Your task to perform on an android device: toggle javascript in the chrome app Image 0: 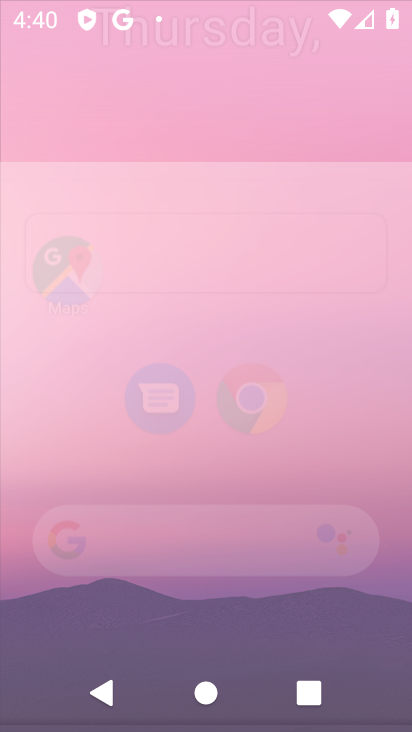
Step 0: drag from (335, 526) to (289, 92)
Your task to perform on an android device: toggle javascript in the chrome app Image 1: 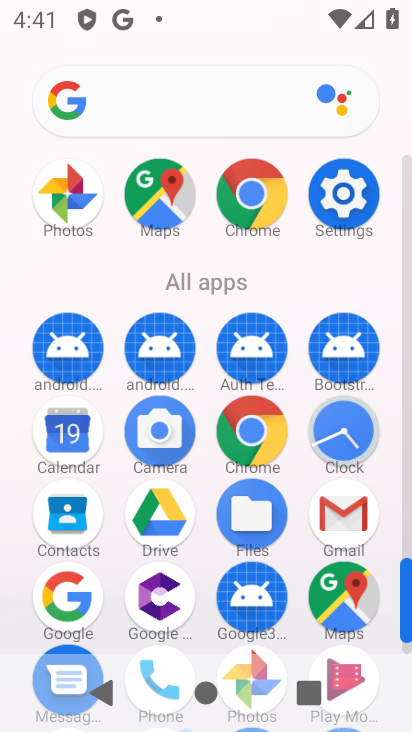
Step 1: click (264, 210)
Your task to perform on an android device: toggle javascript in the chrome app Image 2: 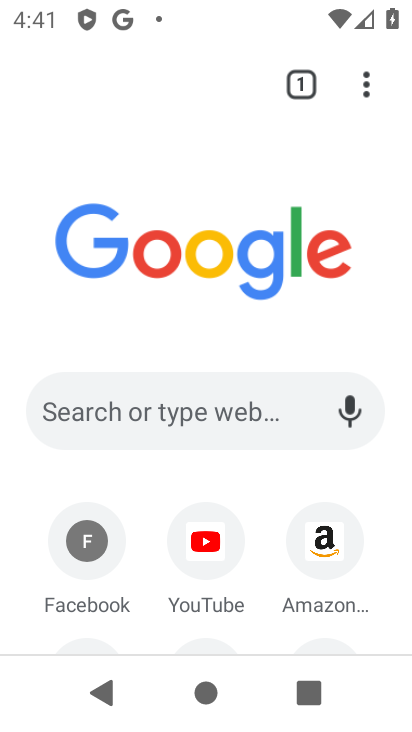
Step 2: drag from (373, 84) to (169, 528)
Your task to perform on an android device: toggle javascript in the chrome app Image 3: 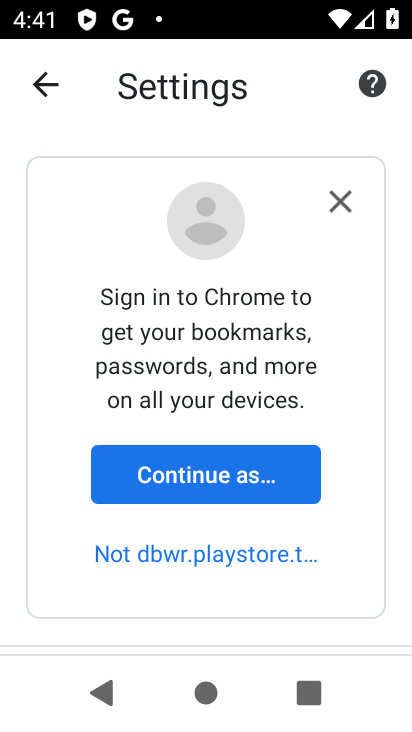
Step 3: drag from (148, 579) to (172, 285)
Your task to perform on an android device: toggle javascript in the chrome app Image 4: 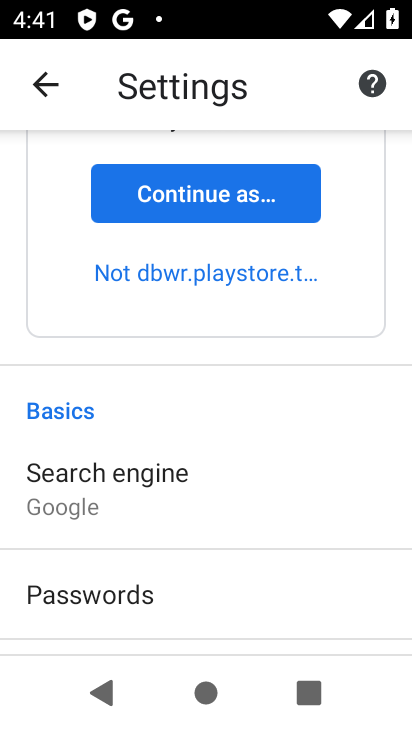
Step 4: drag from (145, 547) to (180, 211)
Your task to perform on an android device: toggle javascript in the chrome app Image 5: 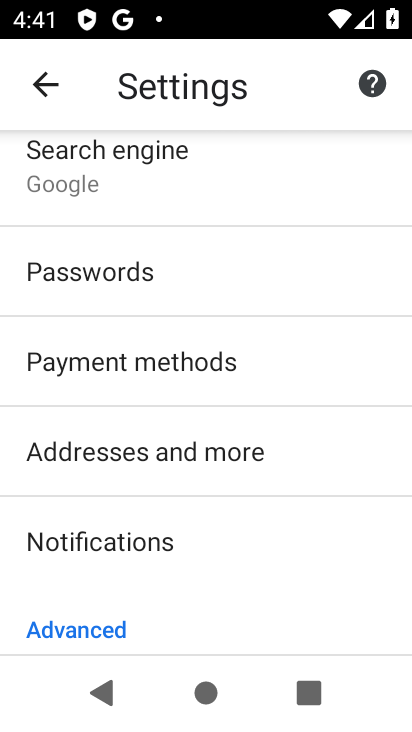
Step 5: drag from (156, 500) to (169, 184)
Your task to perform on an android device: toggle javascript in the chrome app Image 6: 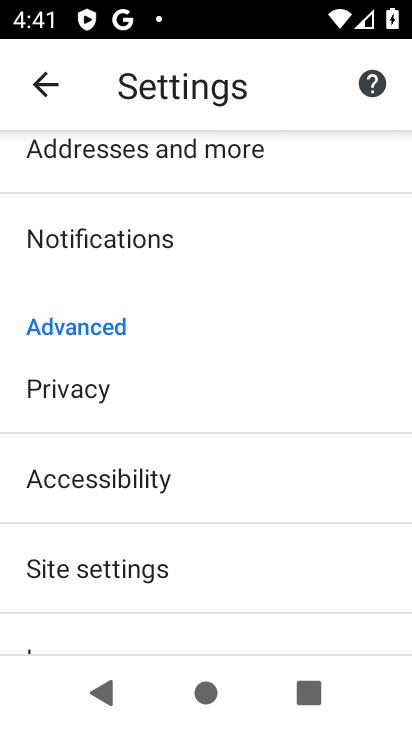
Step 6: click (111, 556)
Your task to perform on an android device: toggle javascript in the chrome app Image 7: 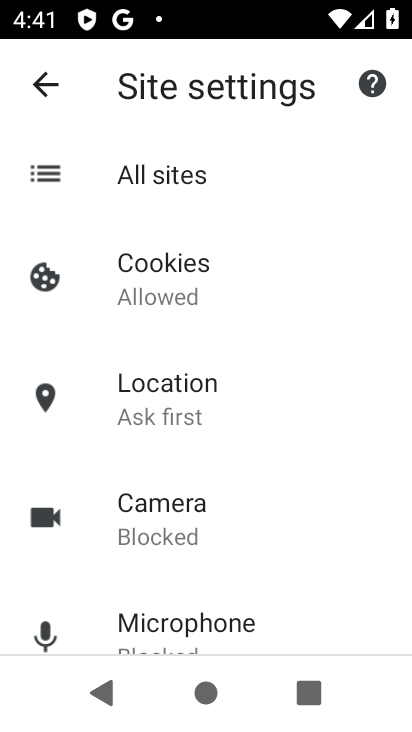
Step 7: drag from (123, 553) to (123, 279)
Your task to perform on an android device: toggle javascript in the chrome app Image 8: 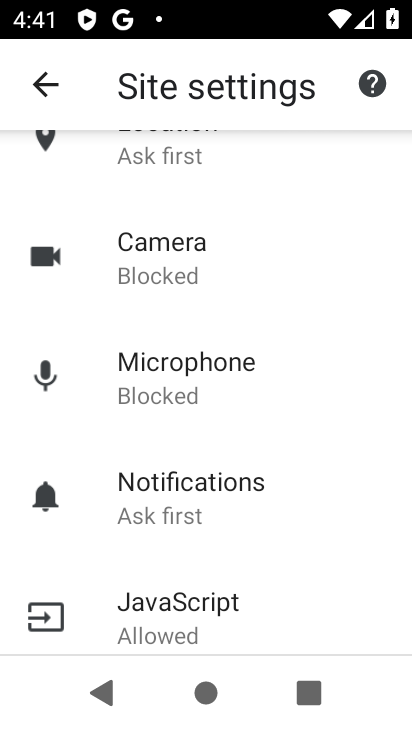
Step 8: click (154, 618)
Your task to perform on an android device: toggle javascript in the chrome app Image 9: 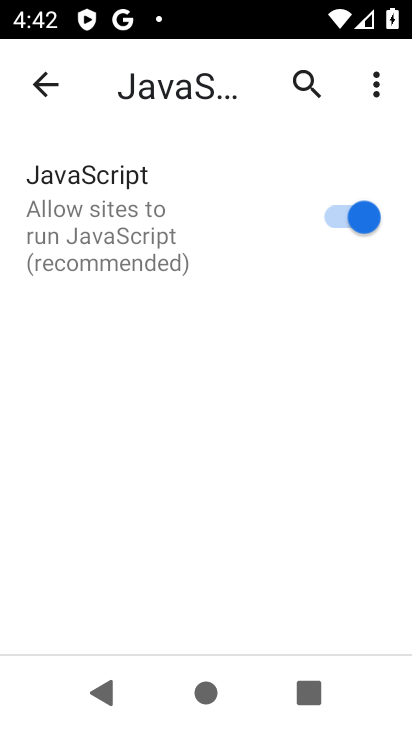
Step 9: click (337, 230)
Your task to perform on an android device: toggle javascript in the chrome app Image 10: 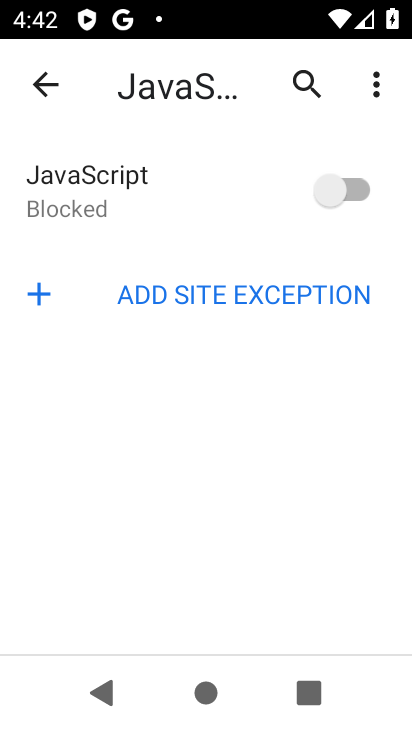
Step 10: task complete